Your task to perform on an android device: What's on my calendar tomorrow? Image 0: 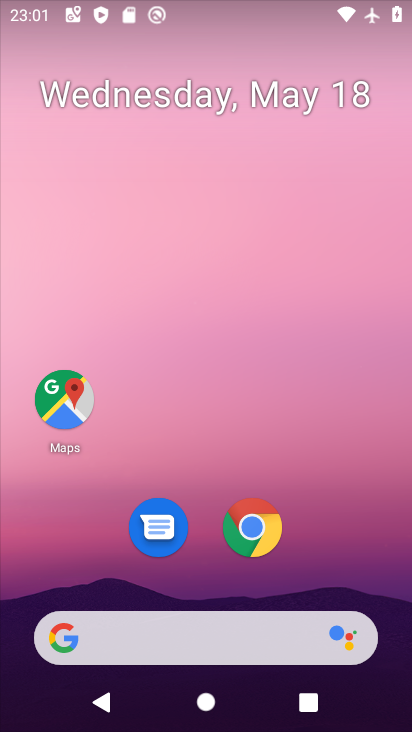
Step 0: drag from (327, 571) to (296, 52)
Your task to perform on an android device: What's on my calendar tomorrow? Image 1: 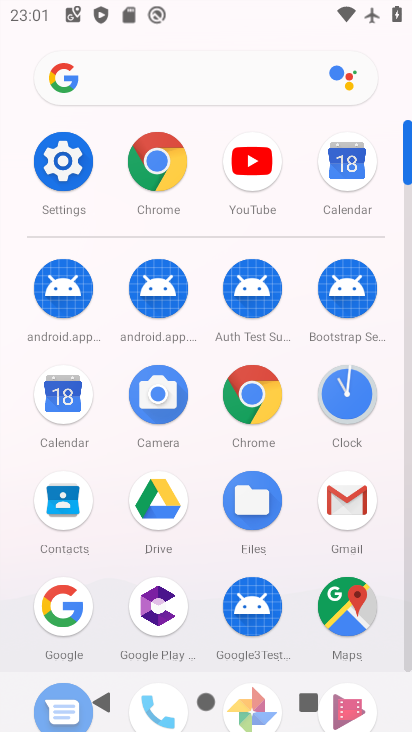
Step 1: click (348, 184)
Your task to perform on an android device: What's on my calendar tomorrow? Image 2: 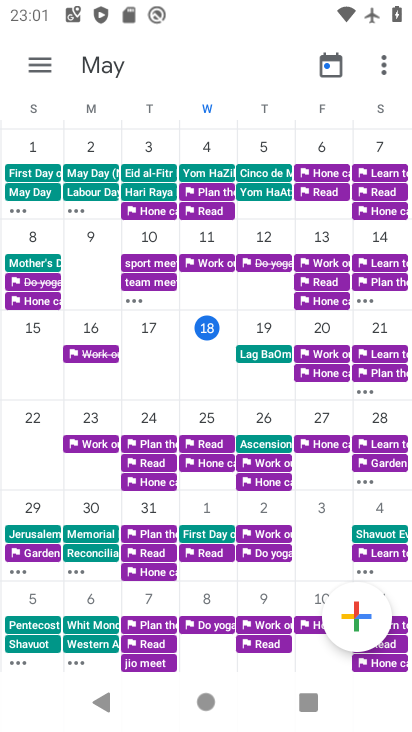
Step 2: task complete